Your task to perform on an android device: Check the news Image 0: 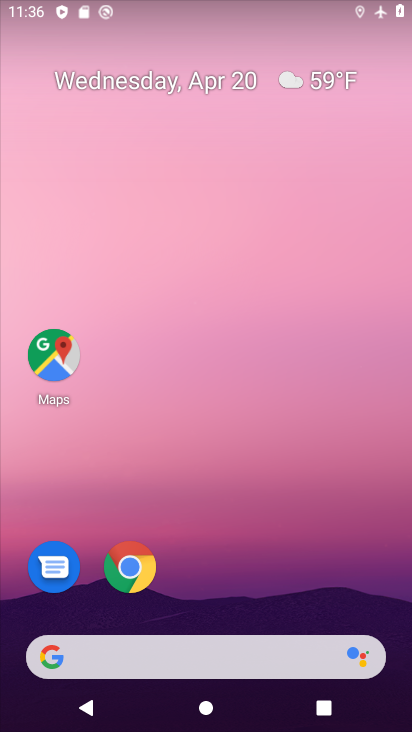
Step 0: drag from (246, 559) to (178, 86)
Your task to perform on an android device: Check the news Image 1: 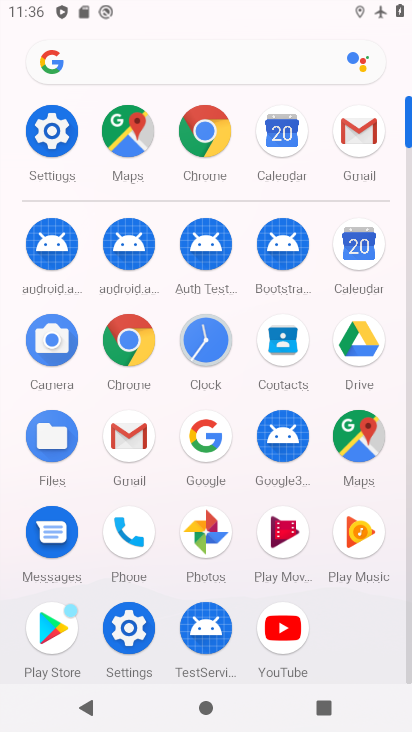
Step 1: click (92, 63)
Your task to perform on an android device: Check the news Image 2: 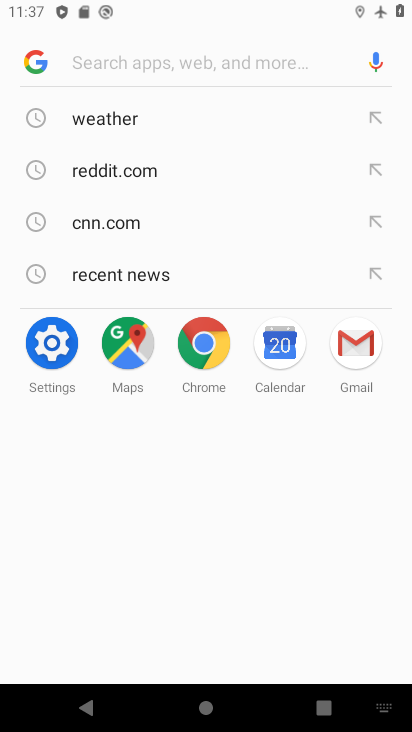
Step 2: type "news"
Your task to perform on an android device: Check the news Image 3: 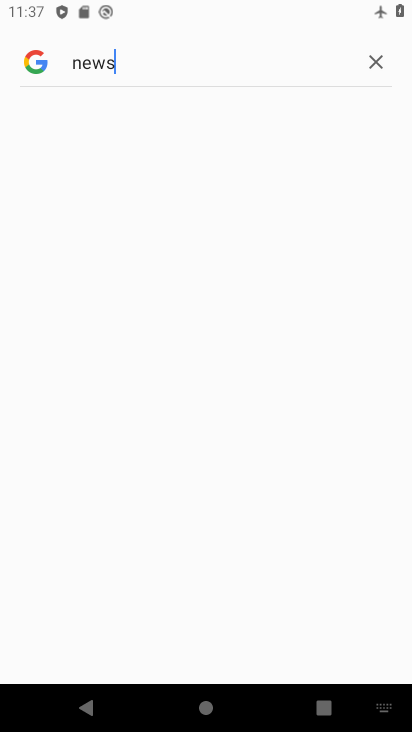
Step 3: task complete